Your task to perform on an android device: Do I have any events today? Image 0: 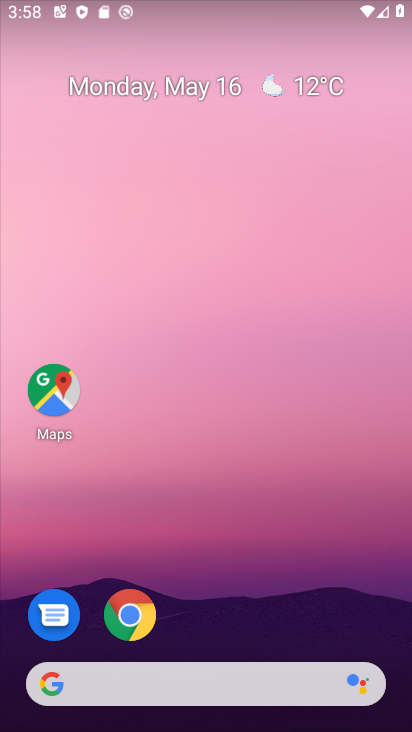
Step 0: drag from (210, 724) to (204, 319)
Your task to perform on an android device: Do I have any events today? Image 1: 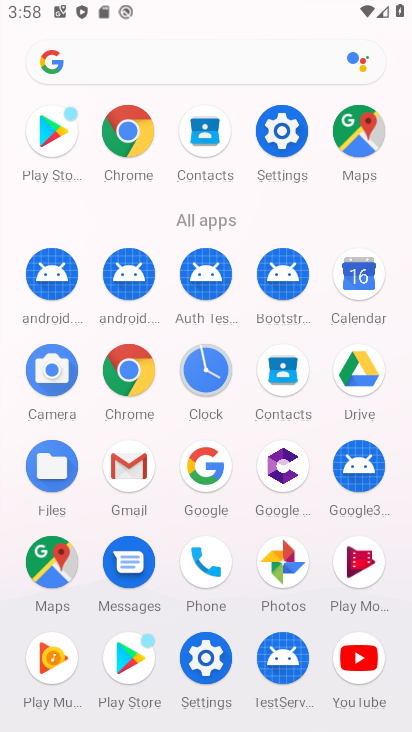
Step 1: click (355, 273)
Your task to perform on an android device: Do I have any events today? Image 2: 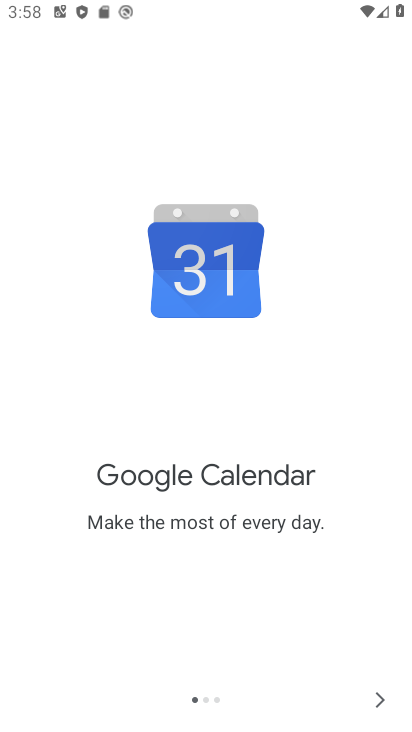
Step 2: click (381, 698)
Your task to perform on an android device: Do I have any events today? Image 3: 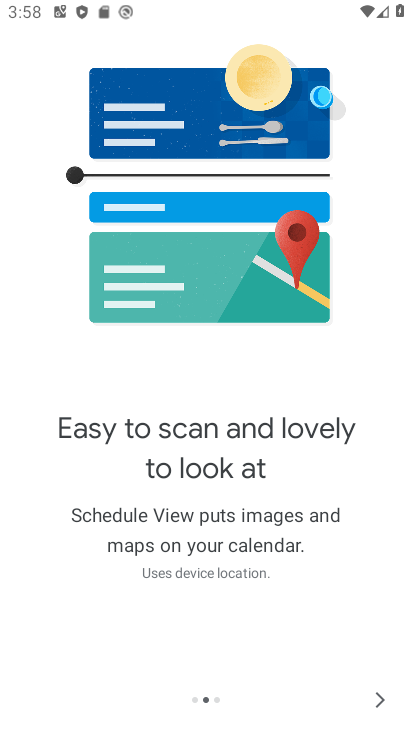
Step 3: click (377, 694)
Your task to perform on an android device: Do I have any events today? Image 4: 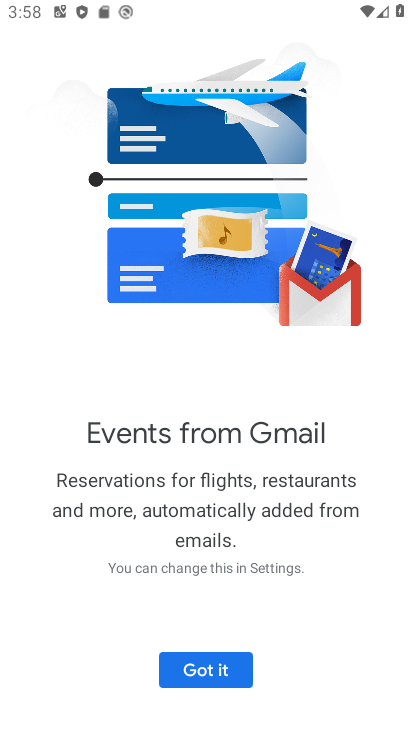
Step 4: click (199, 664)
Your task to perform on an android device: Do I have any events today? Image 5: 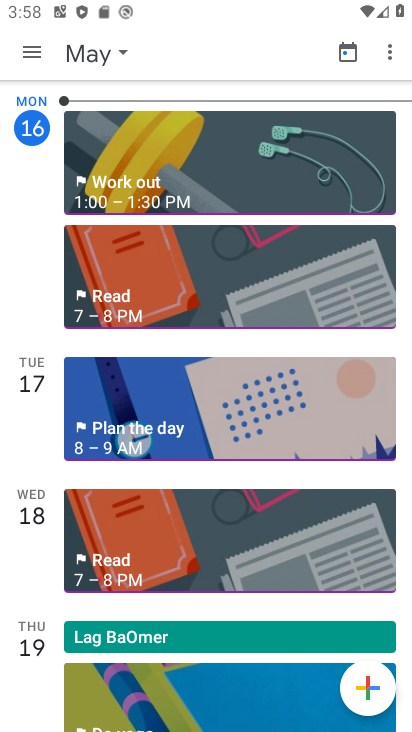
Step 5: click (84, 56)
Your task to perform on an android device: Do I have any events today? Image 6: 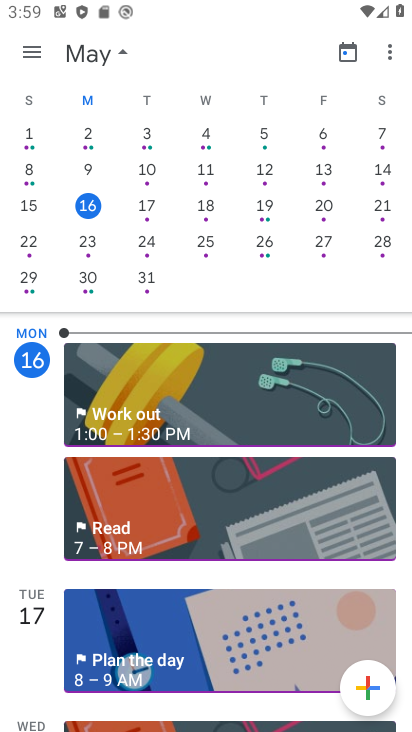
Step 6: click (37, 48)
Your task to perform on an android device: Do I have any events today? Image 7: 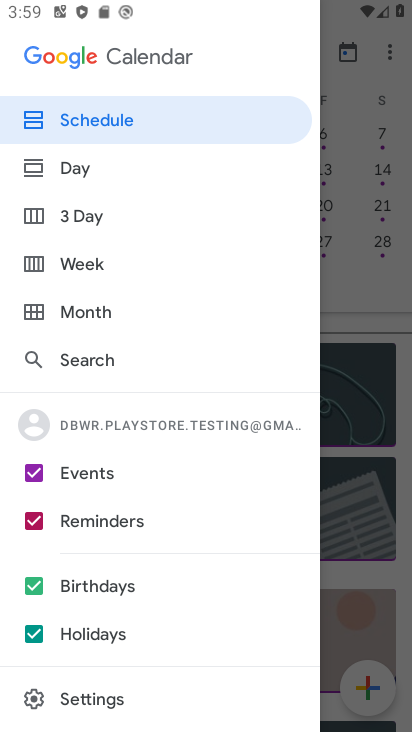
Step 7: click (29, 636)
Your task to perform on an android device: Do I have any events today? Image 8: 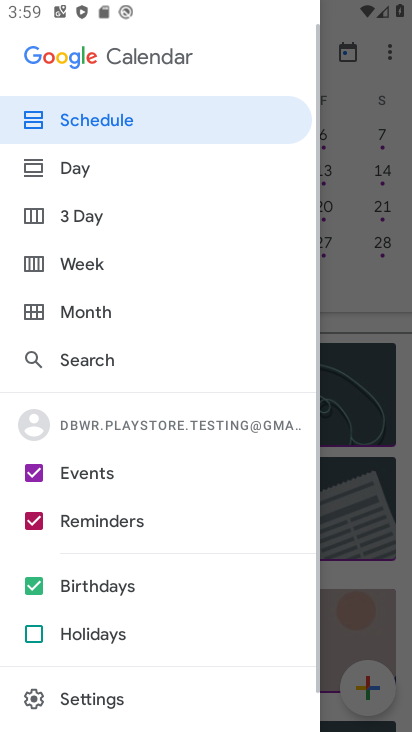
Step 8: click (37, 576)
Your task to perform on an android device: Do I have any events today? Image 9: 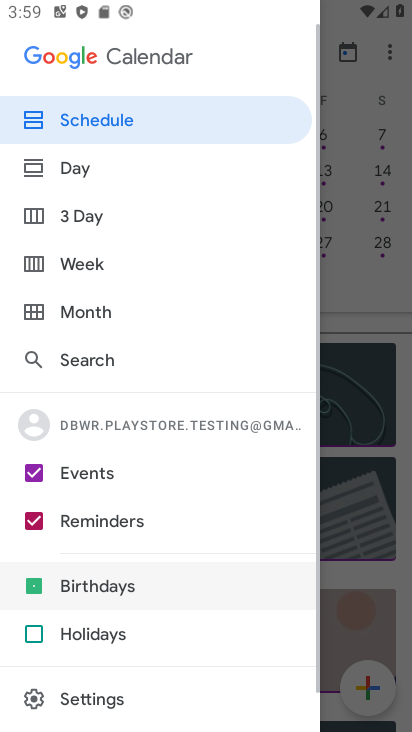
Step 9: click (38, 516)
Your task to perform on an android device: Do I have any events today? Image 10: 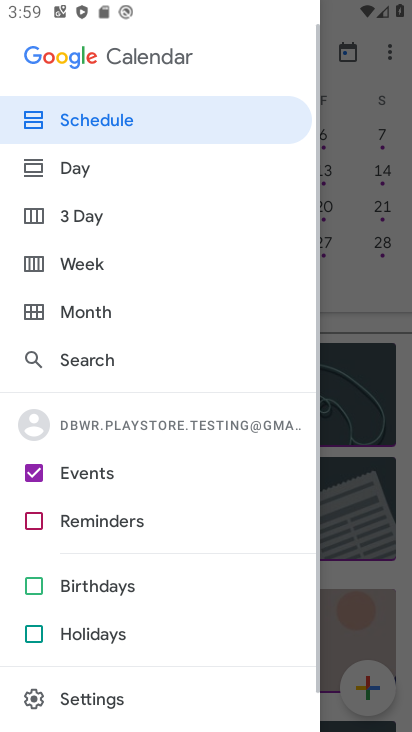
Step 10: click (382, 303)
Your task to perform on an android device: Do I have any events today? Image 11: 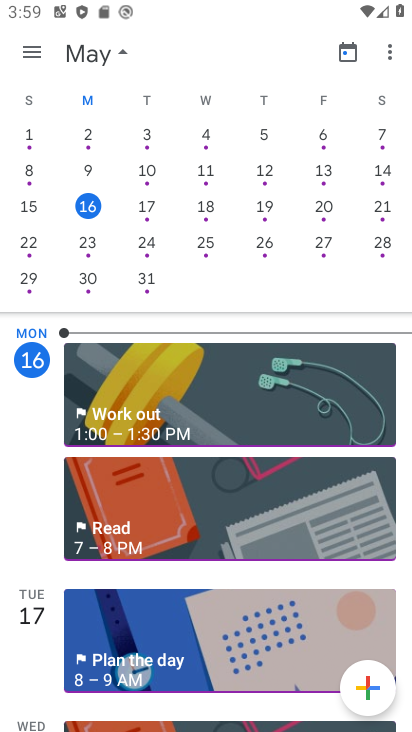
Step 11: task complete